Your task to perform on an android device: change text size in settings app Image 0: 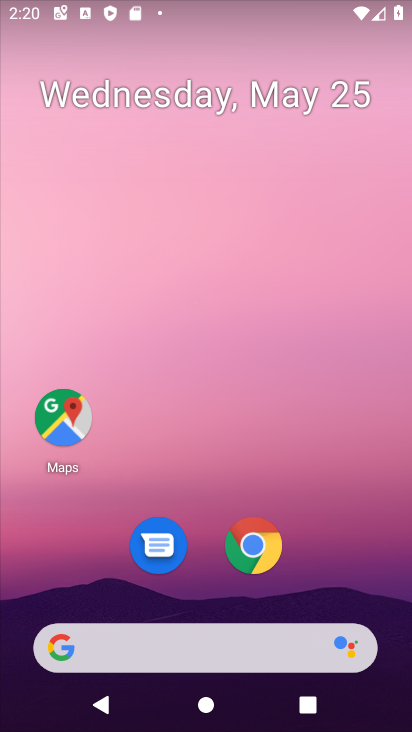
Step 0: drag from (379, 560) to (350, 228)
Your task to perform on an android device: change text size in settings app Image 1: 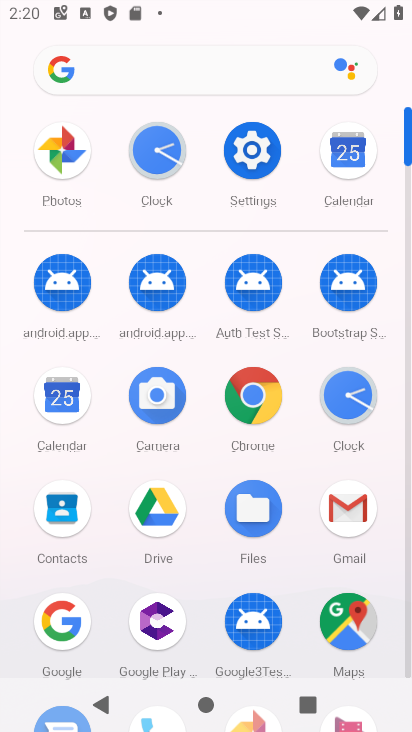
Step 1: click (256, 193)
Your task to perform on an android device: change text size in settings app Image 2: 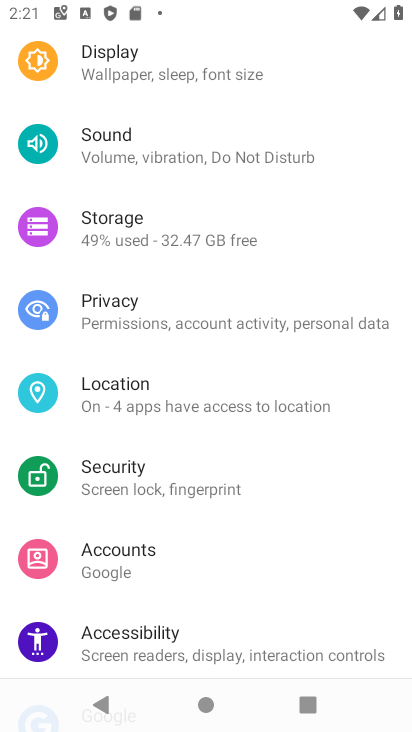
Step 2: click (217, 98)
Your task to perform on an android device: change text size in settings app Image 3: 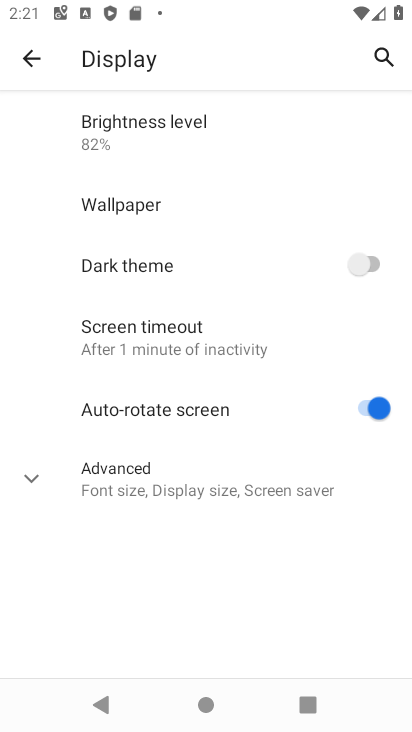
Step 3: click (206, 453)
Your task to perform on an android device: change text size in settings app Image 4: 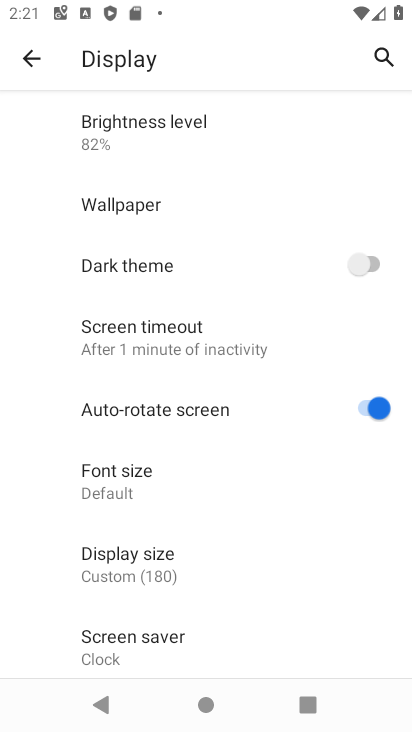
Step 4: click (183, 492)
Your task to perform on an android device: change text size in settings app Image 5: 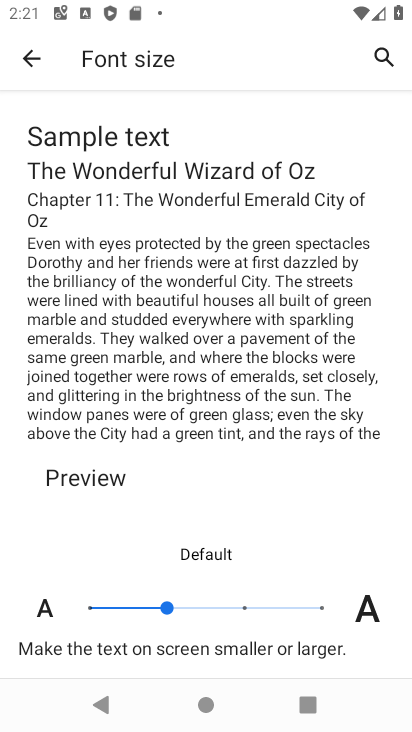
Step 5: click (196, 604)
Your task to perform on an android device: change text size in settings app Image 6: 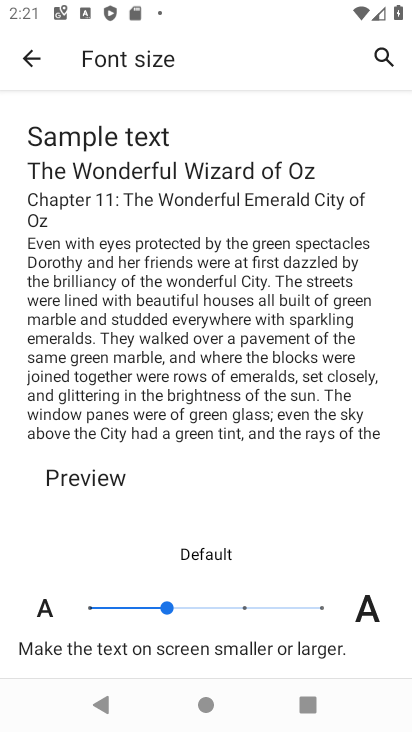
Step 6: task complete